Your task to perform on an android device: check storage Image 0: 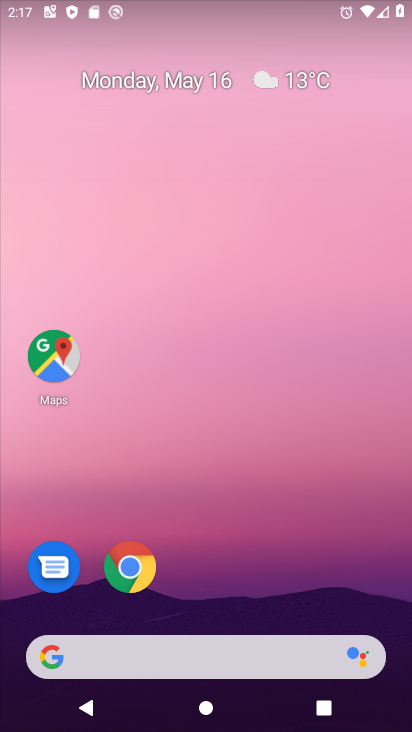
Step 0: press home button
Your task to perform on an android device: check storage Image 1: 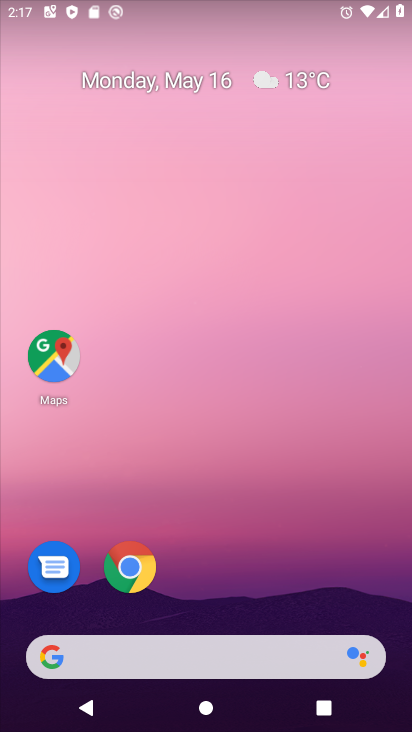
Step 1: drag from (306, 599) to (411, 9)
Your task to perform on an android device: check storage Image 2: 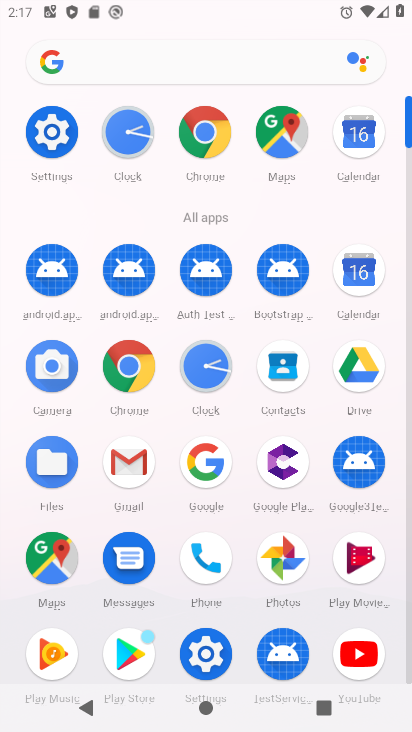
Step 2: click (62, 147)
Your task to perform on an android device: check storage Image 3: 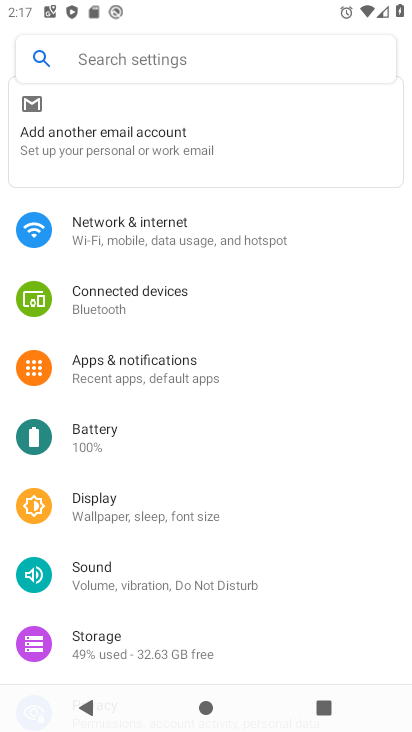
Step 3: click (120, 641)
Your task to perform on an android device: check storage Image 4: 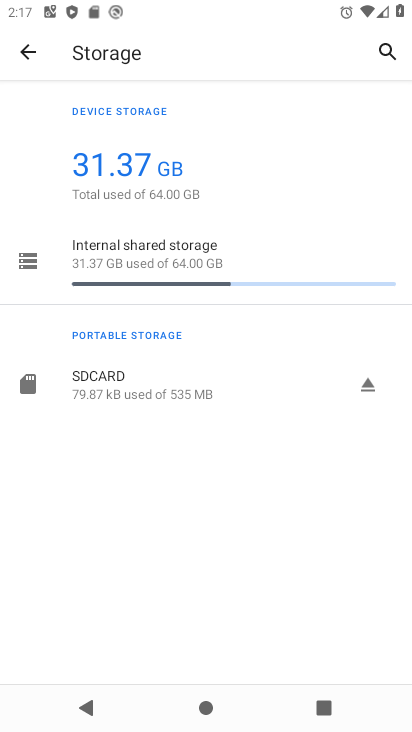
Step 4: task complete